Your task to perform on an android device: Search for Mexican restaurants on Maps Image 0: 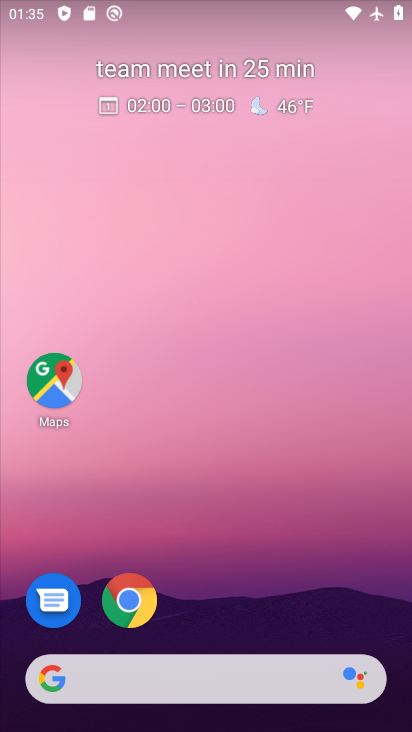
Step 0: click (72, 380)
Your task to perform on an android device: Search for Mexican restaurants on Maps Image 1: 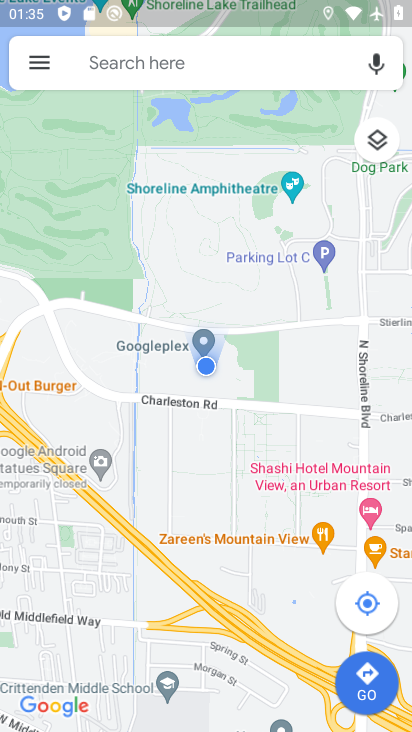
Step 1: click (167, 62)
Your task to perform on an android device: Search for Mexican restaurants on Maps Image 2: 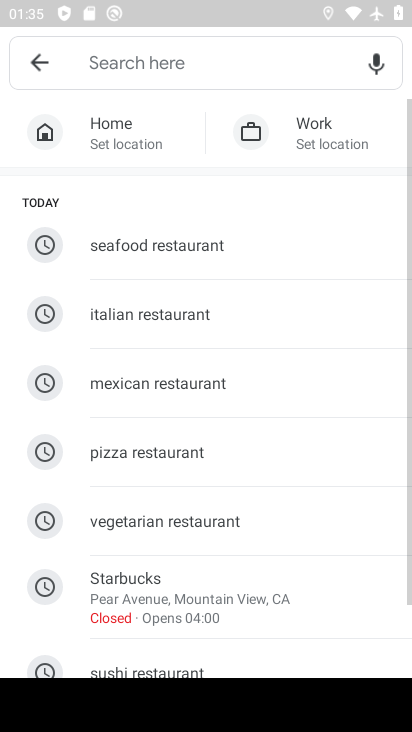
Step 2: click (167, 376)
Your task to perform on an android device: Search for Mexican restaurants on Maps Image 3: 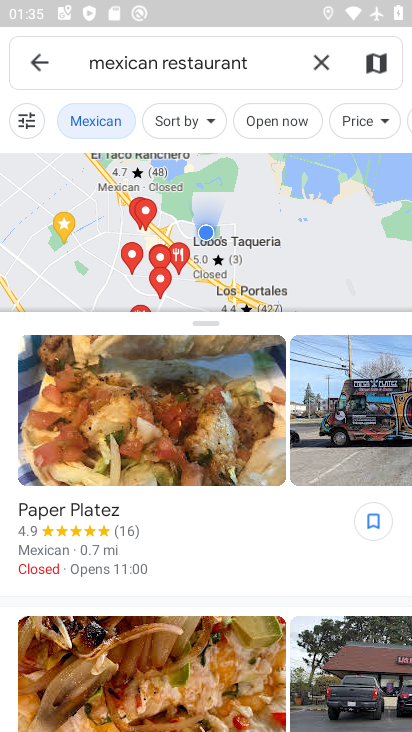
Step 3: task complete